Your task to perform on an android device: Open Youtube and go to "Your channel" Image 0: 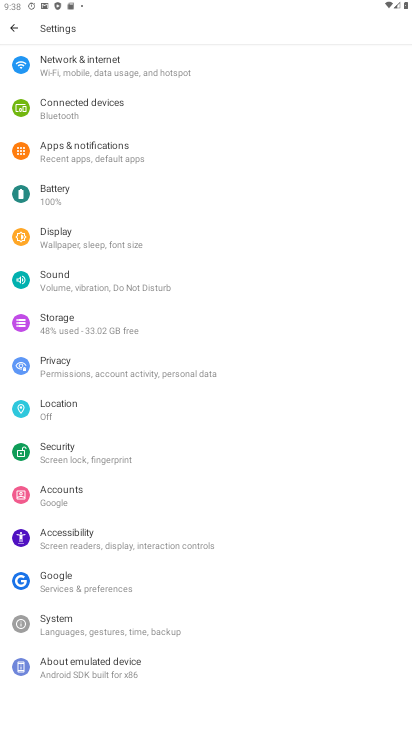
Step 0: press home button
Your task to perform on an android device: Open Youtube and go to "Your channel" Image 1: 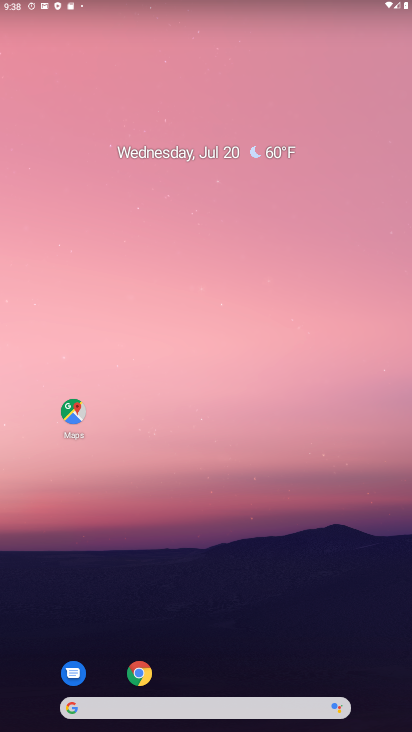
Step 1: drag from (227, 671) to (245, 33)
Your task to perform on an android device: Open Youtube and go to "Your channel" Image 2: 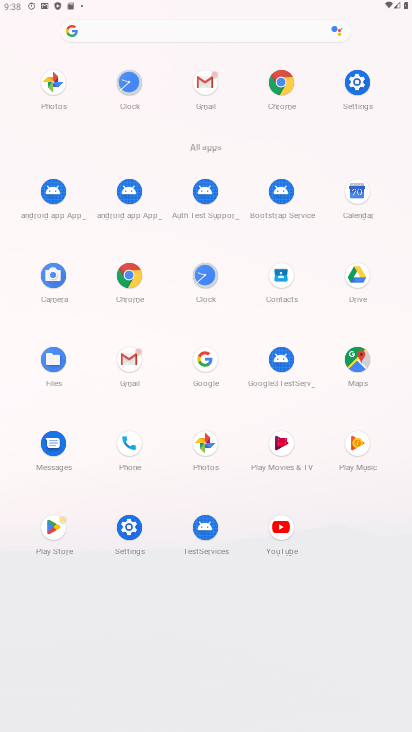
Step 2: click (286, 537)
Your task to perform on an android device: Open Youtube and go to "Your channel" Image 3: 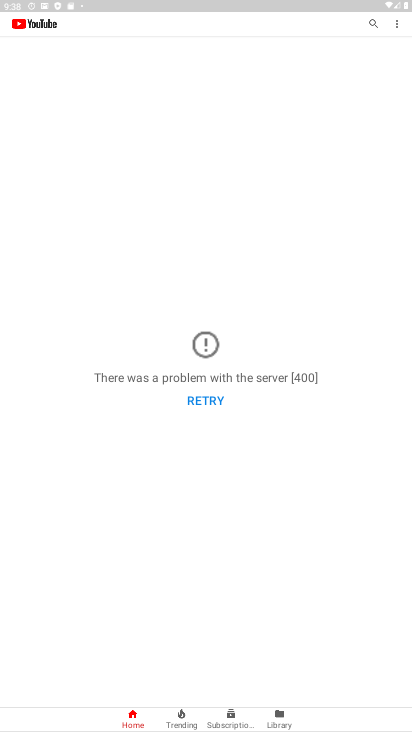
Step 3: click (208, 367)
Your task to perform on an android device: Open Youtube and go to "Your channel" Image 4: 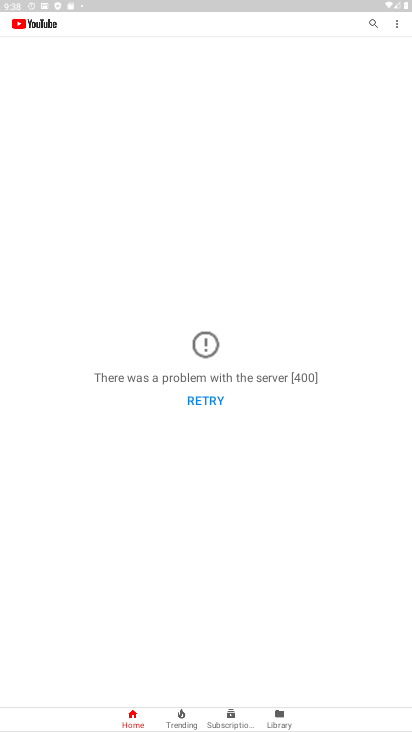
Step 4: click (199, 406)
Your task to perform on an android device: Open Youtube and go to "Your channel" Image 5: 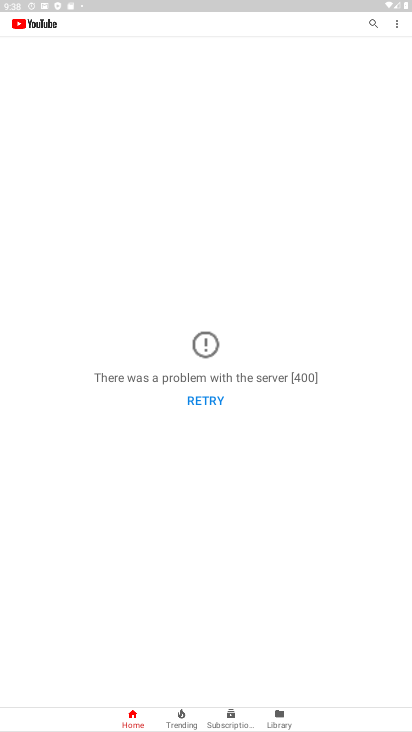
Step 5: click (199, 406)
Your task to perform on an android device: Open Youtube and go to "Your channel" Image 6: 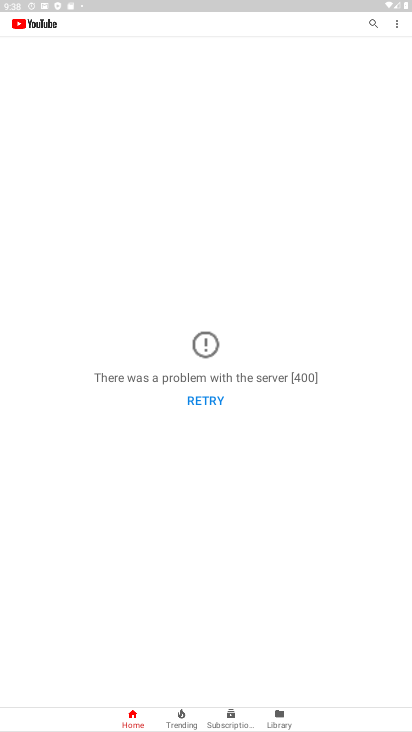
Step 6: click (213, 406)
Your task to perform on an android device: Open Youtube and go to "Your channel" Image 7: 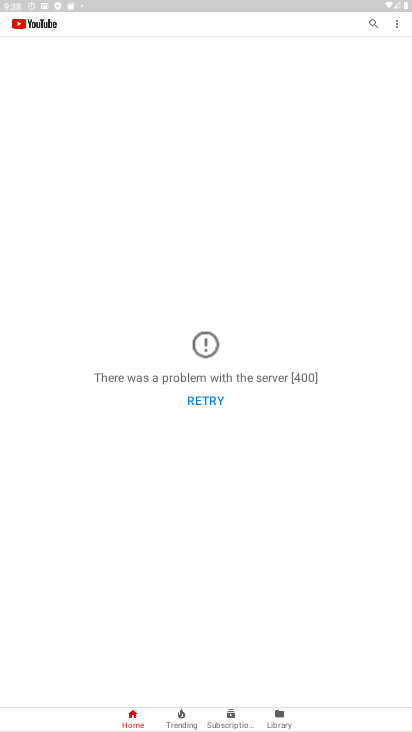
Step 7: task complete